Your task to perform on an android device: Do I have any events tomorrow? Image 0: 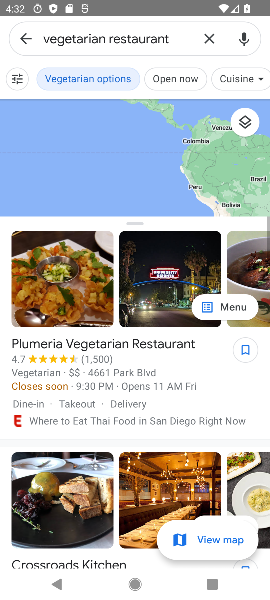
Step 0: press back button
Your task to perform on an android device: Do I have any events tomorrow? Image 1: 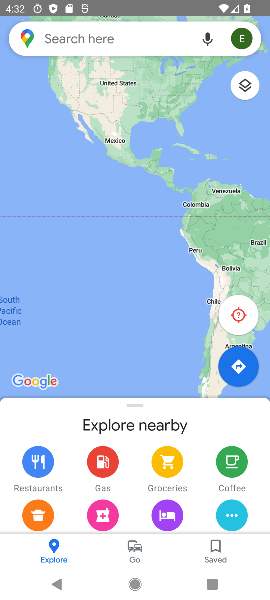
Step 1: press home button
Your task to perform on an android device: Do I have any events tomorrow? Image 2: 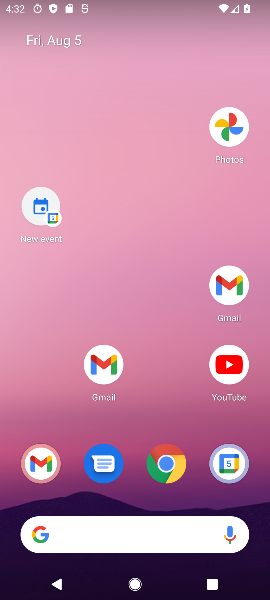
Step 2: drag from (176, 371) to (197, 27)
Your task to perform on an android device: Do I have any events tomorrow? Image 3: 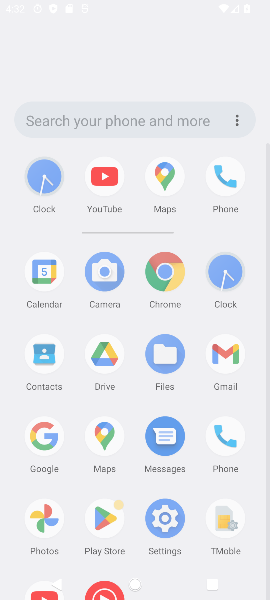
Step 3: drag from (164, 399) to (115, 132)
Your task to perform on an android device: Do I have any events tomorrow? Image 4: 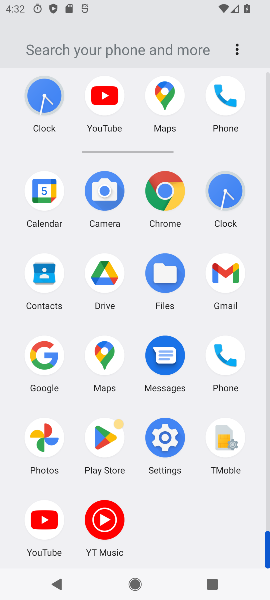
Step 4: click (49, 190)
Your task to perform on an android device: Do I have any events tomorrow? Image 5: 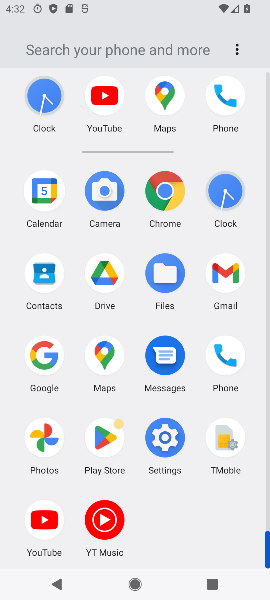
Step 5: click (49, 190)
Your task to perform on an android device: Do I have any events tomorrow? Image 6: 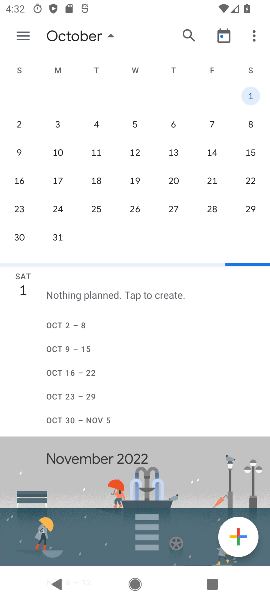
Step 6: click (50, 190)
Your task to perform on an android device: Do I have any events tomorrow? Image 7: 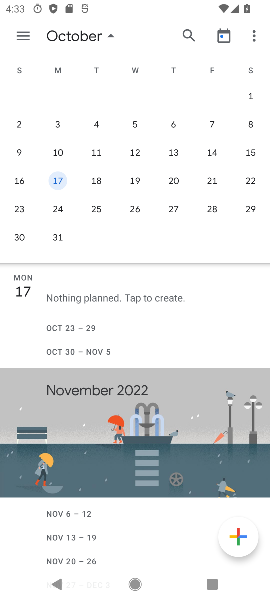
Step 7: drag from (153, 187) to (21, 169)
Your task to perform on an android device: Do I have any events tomorrow? Image 8: 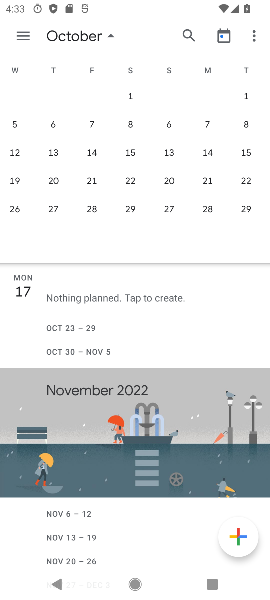
Step 8: drag from (215, 153) to (36, 161)
Your task to perform on an android device: Do I have any events tomorrow? Image 9: 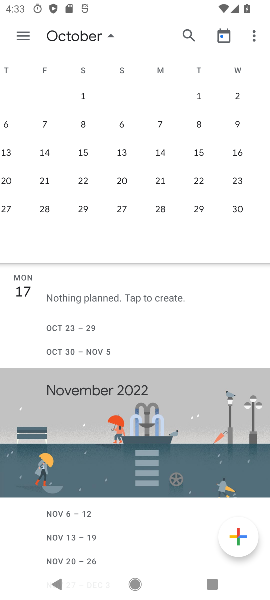
Step 9: drag from (195, 155) to (12, 206)
Your task to perform on an android device: Do I have any events tomorrow? Image 10: 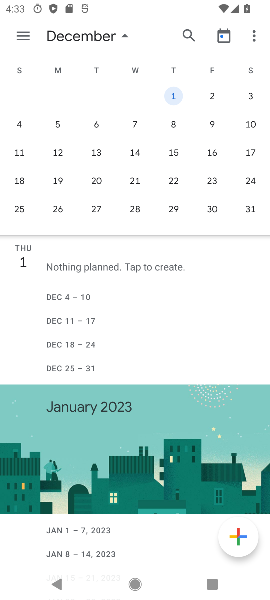
Step 10: drag from (13, 179) to (229, 107)
Your task to perform on an android device: Do I have any events tomorrow? Image 11: 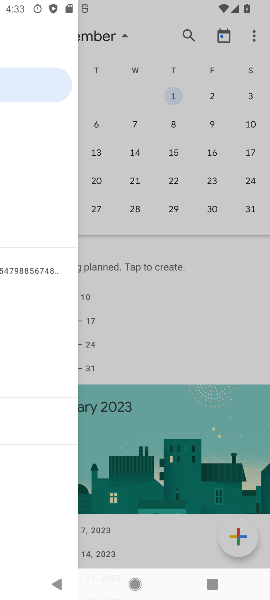
Step 11: drag from (94, 94) to (255, 137)
Your task to perform on an android device: Do I have any events tomorrow? Image 12: 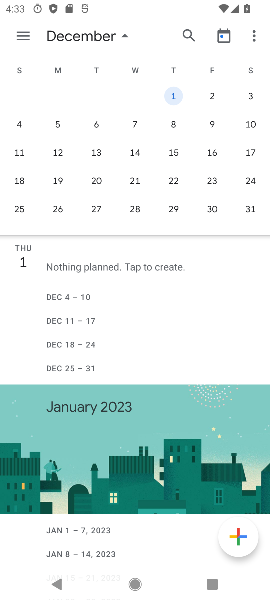
Step 12: drag from (111, 154) to (266, 137)
Your task to perform on an android device: Do I have any events tomorrow? Image 13: 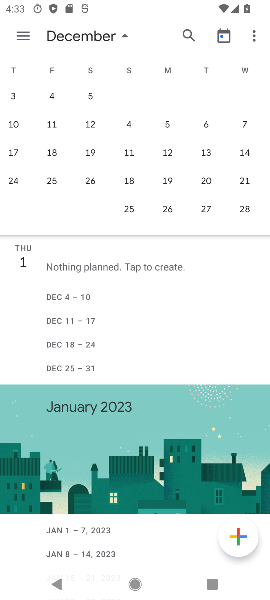
Step 13: drag from (135, 133) to (247, 140)
Your task to perform on an android device: Do I have any events tomorrow? Image 14: 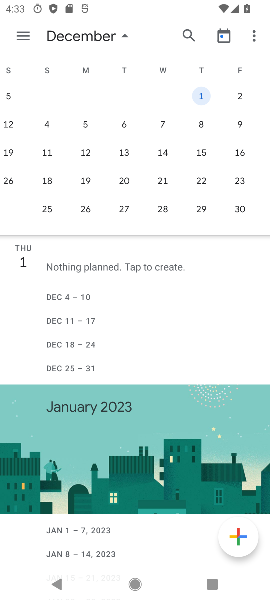
Step 14: drag from (114, 132) to (214, 132)
Your task to perform on an android device: Do I have any events tomorrow? Image 15: 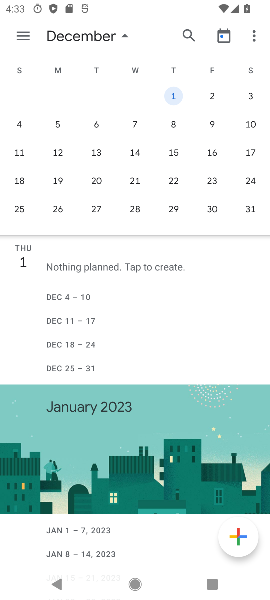
Step 15: drag from (92, 135) to (217, 150)
Your task to perform on an android device: Do I have any events tomorrow? Image 16: 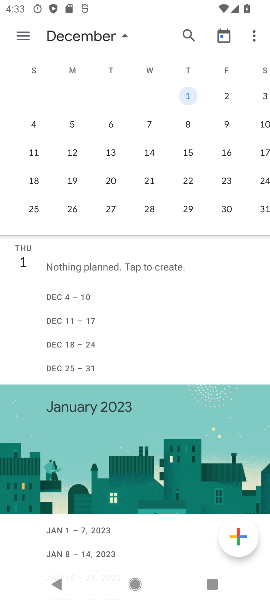
Step 16: drag from (43, 169) to (264, 188)
Your task to perform on an android device: Do I have any events tomorrow? Image 17: 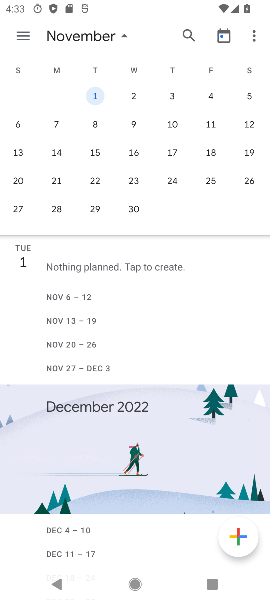
Step 17: drag from (114, 141) to (261, 149)
Your task to perform on an android device: Do I have any events tomorrow? Image 18: 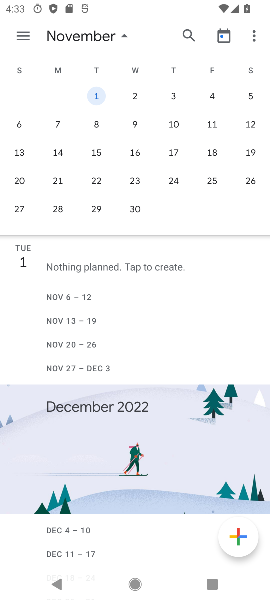
Step 18: drag from (80, 141) to (262, 158)
Your task to perform on an android device: Do I have any events tomorrow? Image 19: 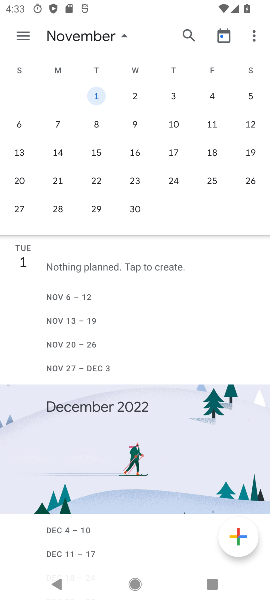
Step 19: drag from (92, 152) to (262, 163)
Your task to perform on an android device: Do I have any events tomorrow? Image 20: 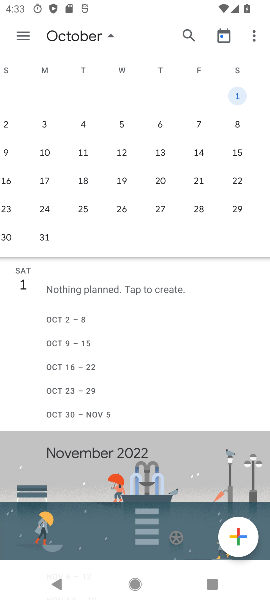
Step 20: drag from (115, 165) to (259, 176)
Your task to perform on an android device: Do I have any events tomorrow? Image 21: 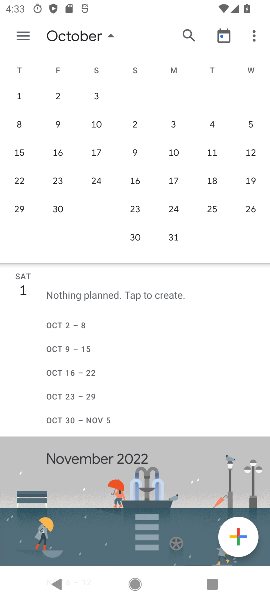
Step 21: drag from (56, 157) to (209, 150)
Your task to perform on an android device: Do I have any events tomorrow? Image 22: 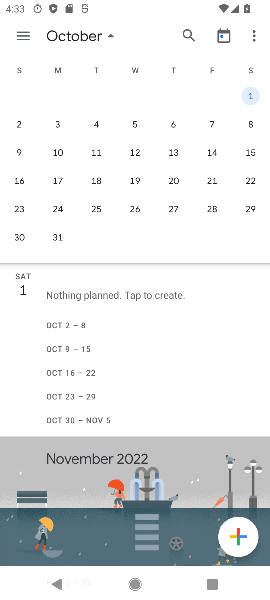
Step 22: drag from (96, 174) to (244, 186)
Your task to perform on an android device: Do I have any events tomorrow? Image 23: 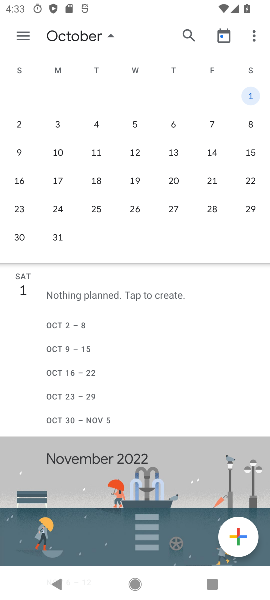
Step 23: drag from (161, 175) to (269, 168)
Your task to perform on an android device: Do I have any events tomorrow? Image 24: 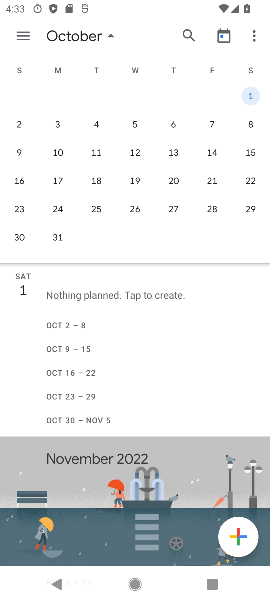
Step 24: drag from (104, 162) to (256, 149)
Your task to perform on an android device: Do I have any events tomorrow? Image 25: 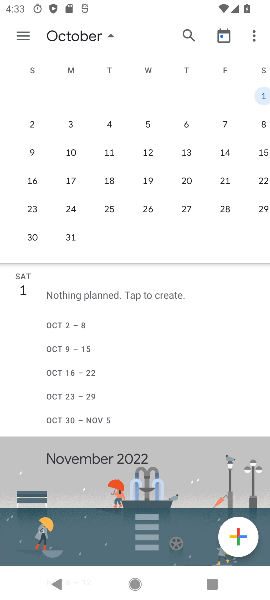
Step 25: drag from (117, 147) to (265, 159)
Your task to perform on an android device: Do I have any events tomorrow? Image 26: 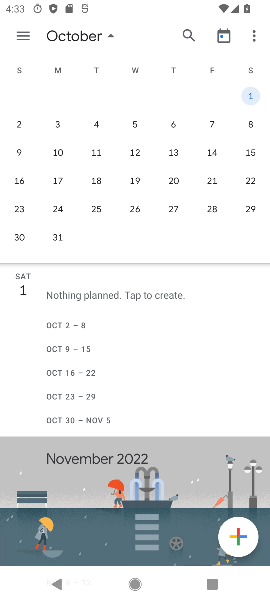
Step 26: drag from (62, 157) to (245, 141)
Your task to perform on an android device: Do I have any events tomorrow? Image 27: 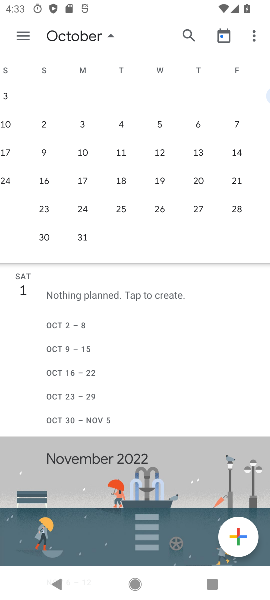
Step 27: drag from (126, 138) to (259, 160)
Your task to perform on an android device: Do I have any events tomorrow? Image 28: 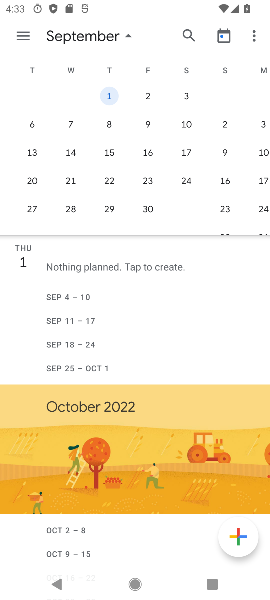
Step 28: drag from (105, 158) to (259, 150)
Your task to perform on an android device: Do I have any events tomorrow? Image 29: 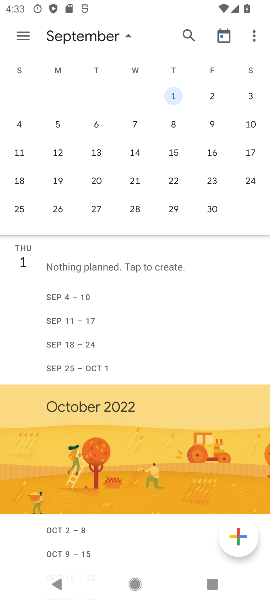
Step 29: drag from (50, 141) to (269, 169)
Your task to perform on an android device: Do I have any events tomorrow? Image 30: 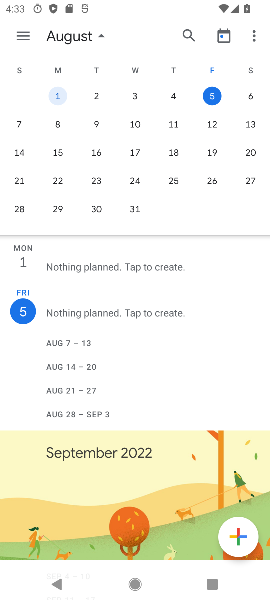
Step 30: click (211, 115)
Your task to perform on an android device: Do I have any events tomorrow? Image 31: 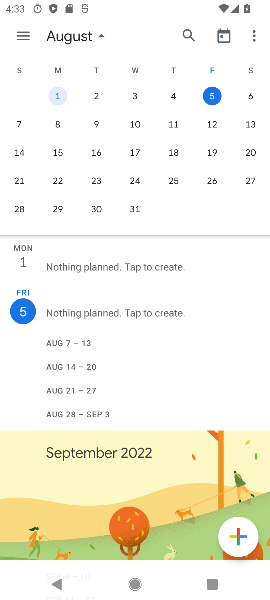
Step 31: task complete